Your task to perform on an android device: star an email in the gmail app Image 0: 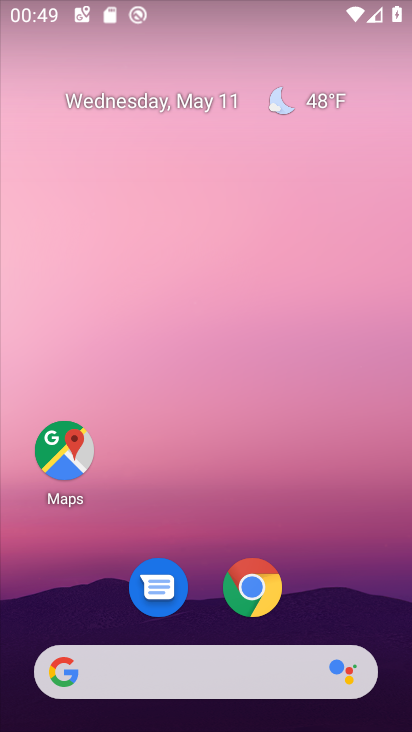
Step 0: drag from (340, 574) to (232, 200)
Your task to perform on an android device: star an email in the gmail app Image 1: 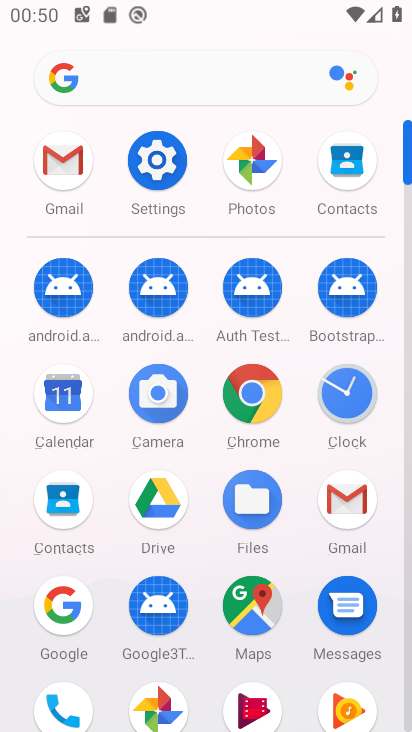
Step 1: click (339, 500)
Your task to perform on an android device: star an email in the gmail app Image 2: 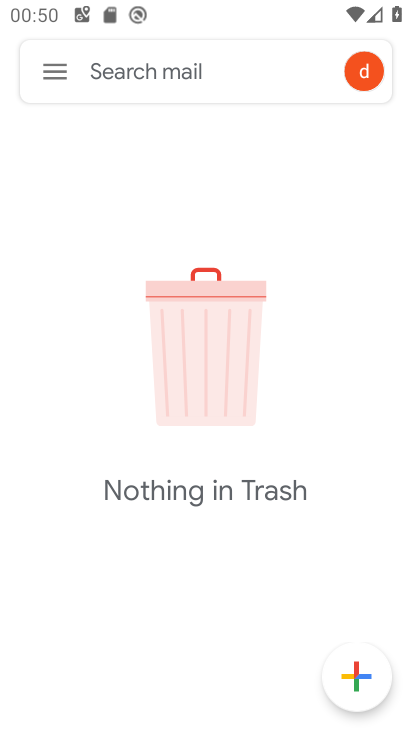
Step 2: click (52, 78)
Your task to perform on an android device: star an email in the gmail app Image 3: 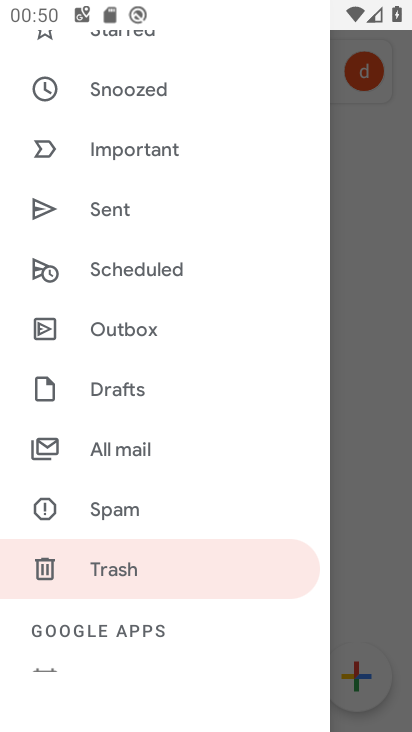
Step 3: task complete